Your task to perform on an android device: turn on airplane mode Image 0: 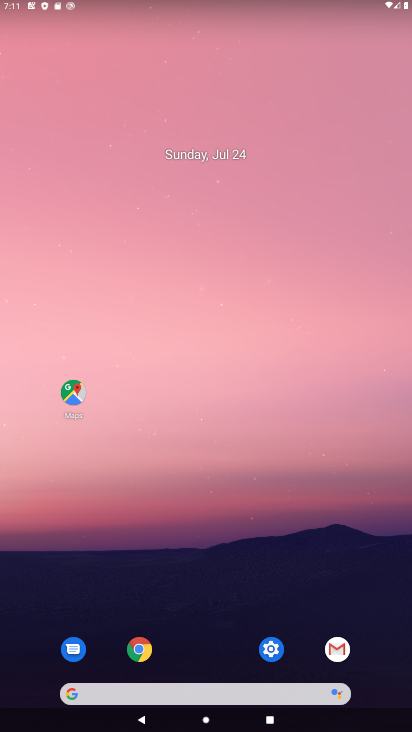
Step 0: click (271, 641)
Your task to perform on an android device: turn on airplane mode Image 1: 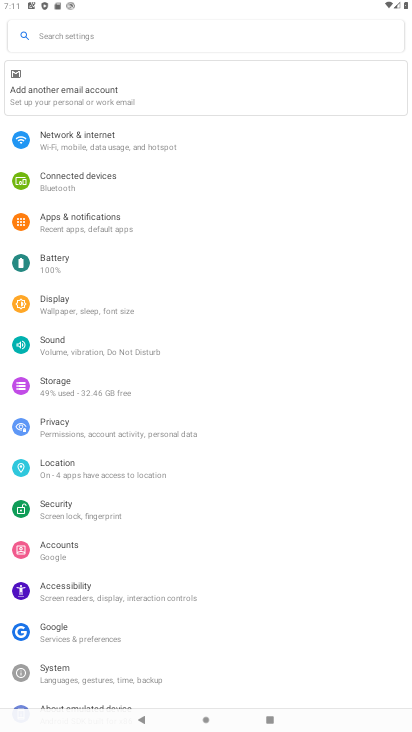
Step 1: click (133, 144)
Your task to perform on an android device: turn on airplane mode Image 2: 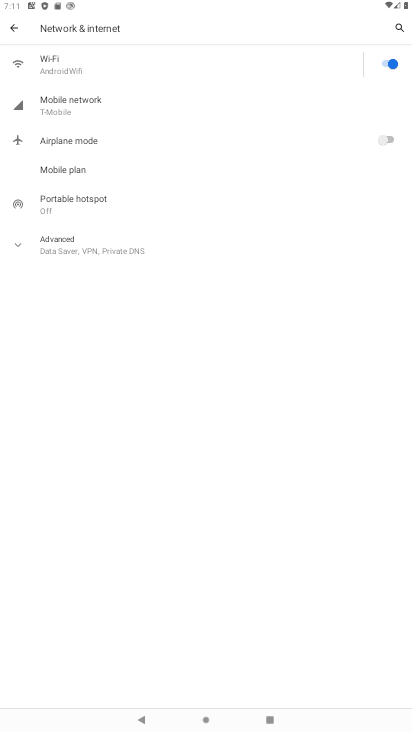
Step 2: click (84, 147)
Your task to perform on an android device: turn on airplane mode Image 3: 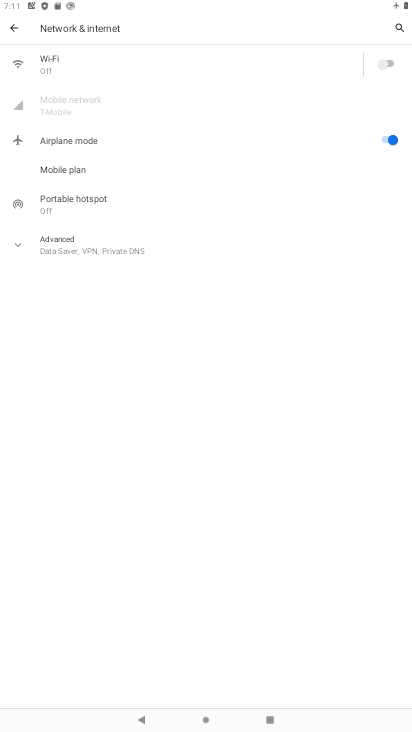
Step 3: task complete